Your task to perform on an android device: Open Youtube and go to "Your channel" Image 0: 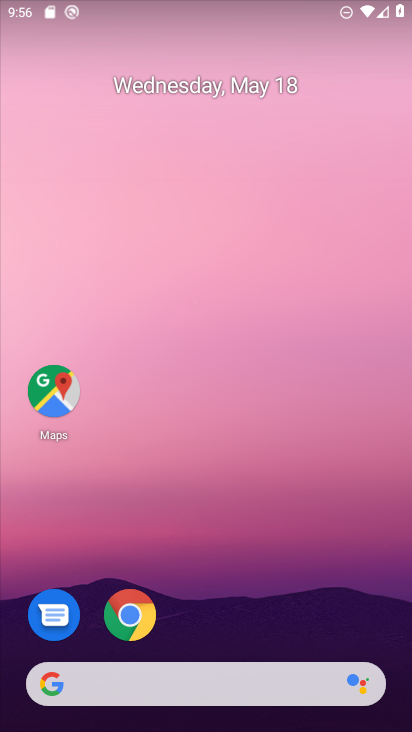
Step 0: drag from (220, 570) to (261, 92)
Your task to perform on an android device: Open Youtube and go to "Your channel" Image 1: 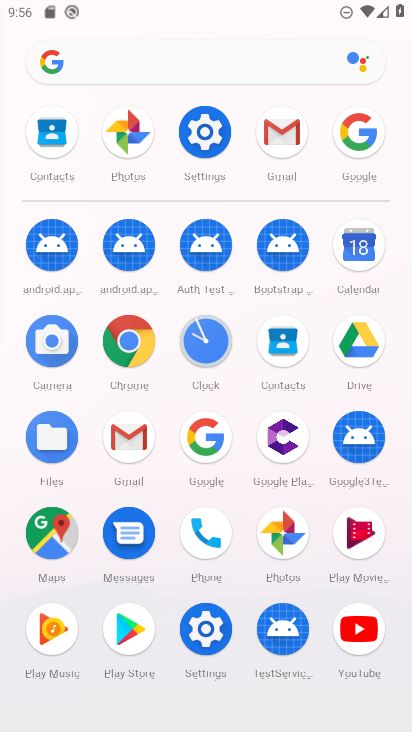
Step 1: click (353, 628)
Your task to perform on an android device: Open Youtube and go to "Your channel" Image 2: 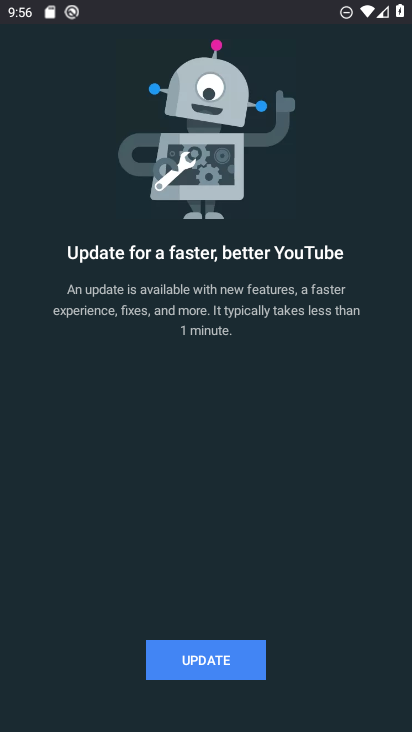
Step 2: click (189, 660)
Your task to perform on an android device: Open Youtube and go to "Your channel" Image 3: 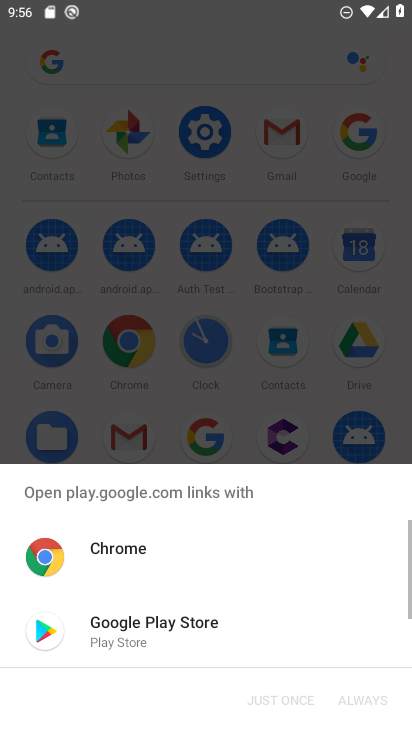
Step 3: click (132, 632)
Your task to perform on an android device: Open Youtube and go to "Your channel" Image 4: 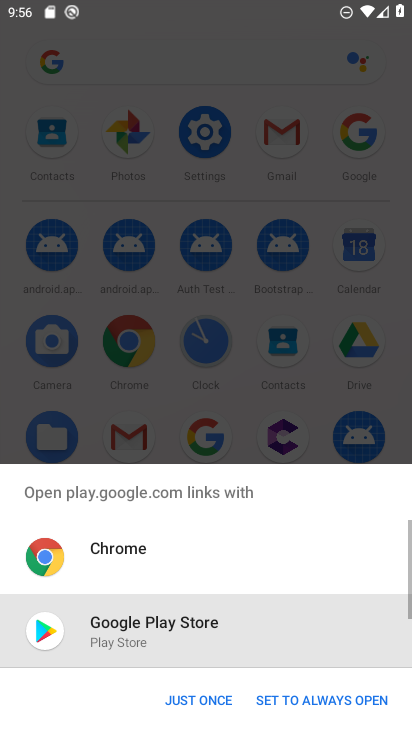
Step 4: click (184, 693)
Your task to perform on an android device: Open Youtube and go to "Your channel" Image 5: 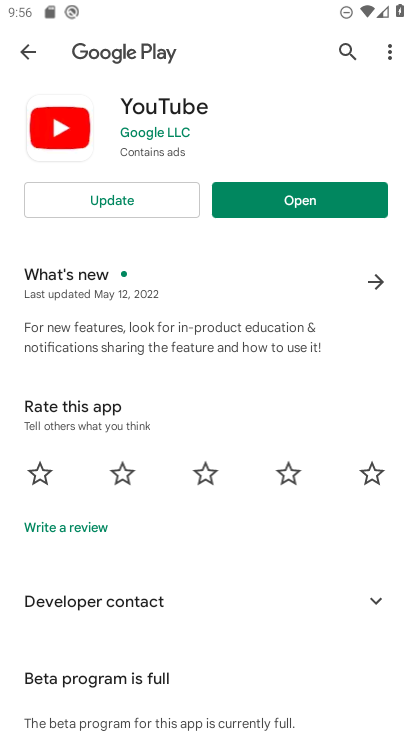
Step 5: click (112, 200)
Your task to perform on an android device: Open Youtube and go to "Your channel" Image 6: 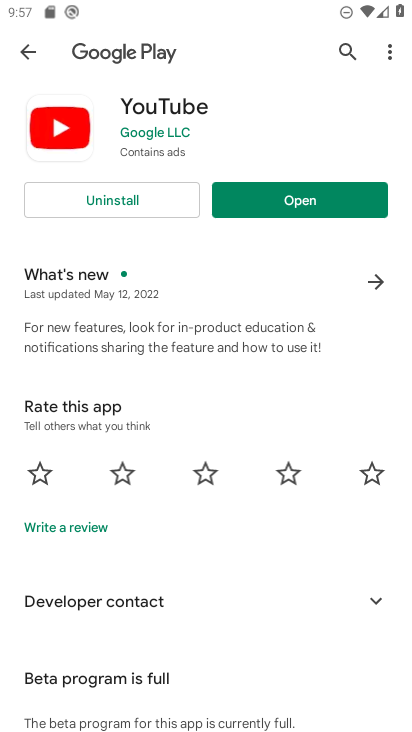
Step 6: click (330, 200)
Your task to perform on an android device: Open Youtube and go to "Your channel" Image 7: 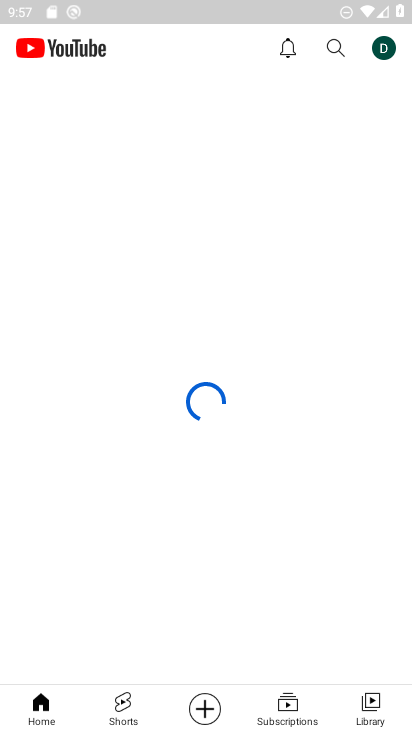
Step 7: drag from (253, 705) to (279, 289)
Your task to perform on an android device: Open Youtube and go to "Your channel" Image 8: 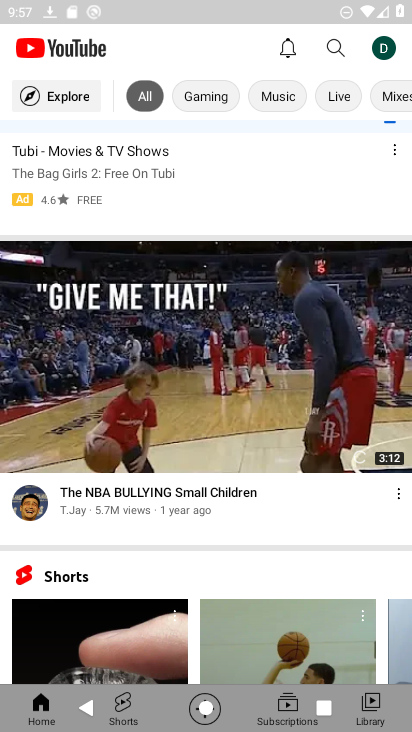
Step 8: click (384, 48)
Your task to perform on an android device: Open Youtube and go to "Your channel" Image 9: 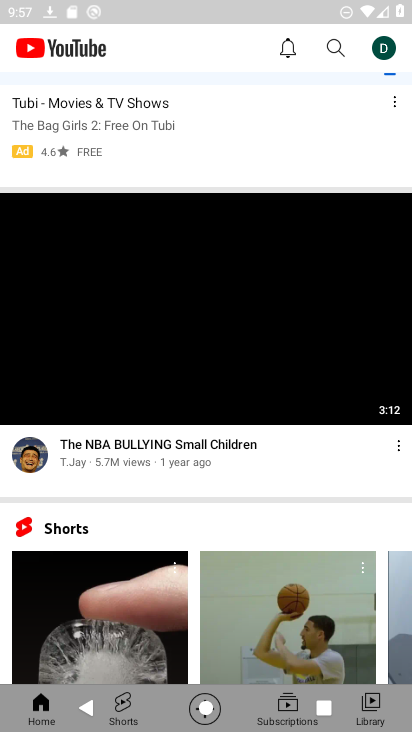
Step 9: click (385, 49)
Your task to perform on an android device: Open Youtube and go to "Your channel" Image 10: 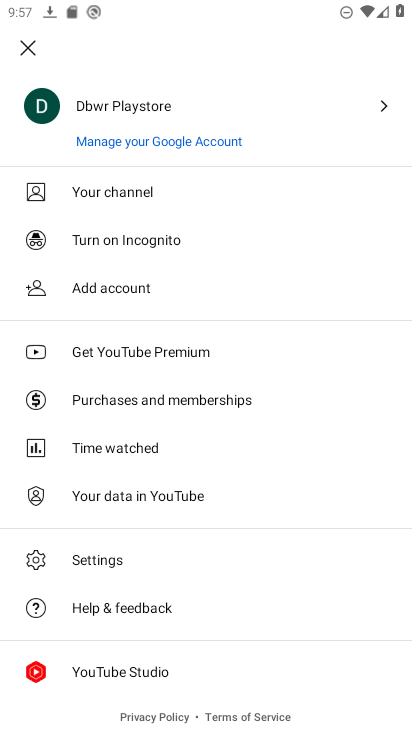
Step 10: click (127, 186)
Your task to perform on an android device: Open Youtube and go to "Your channel" Image 11: 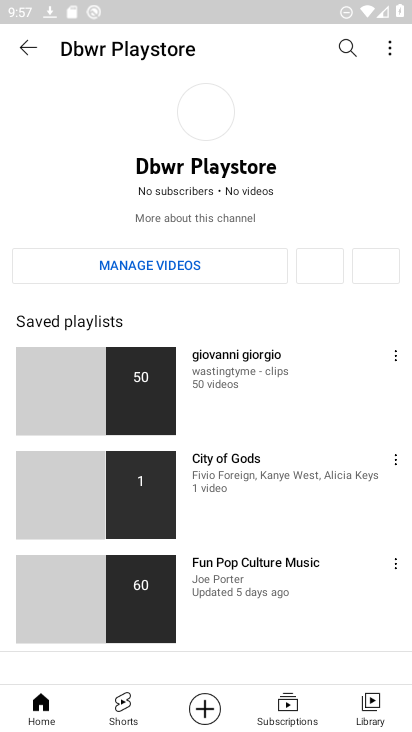
Step 11: task complete